Your task to perform on an android device: Go to settings Image 0: 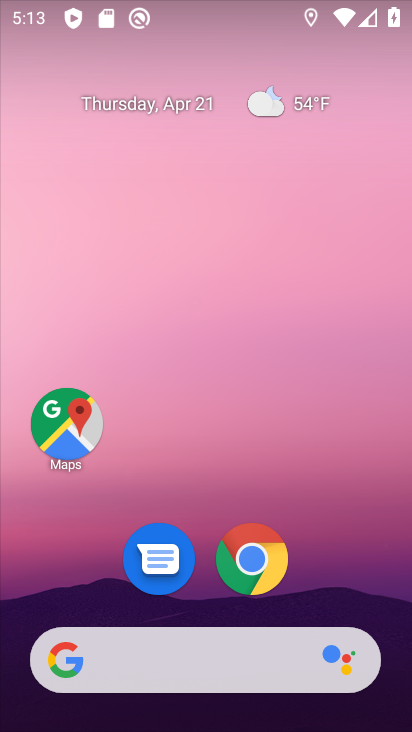
Step 0: drag from (338, 528) to (411, 39)
Your task to perform on an android device: Go to settings Image 1: 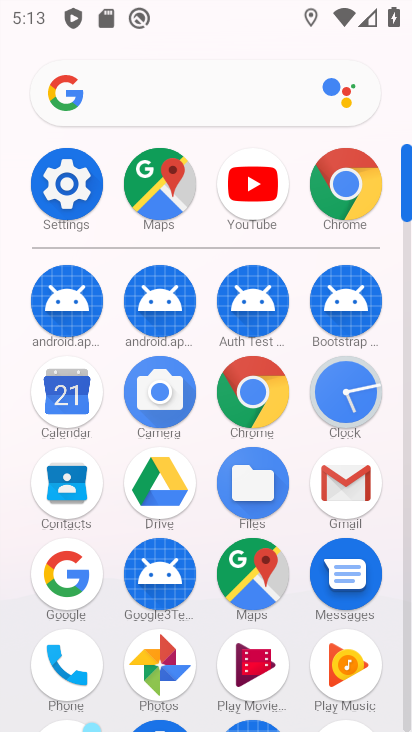
Step 1: click (67, 166)
Your task to perform on an android device: Go to settings Image 2: 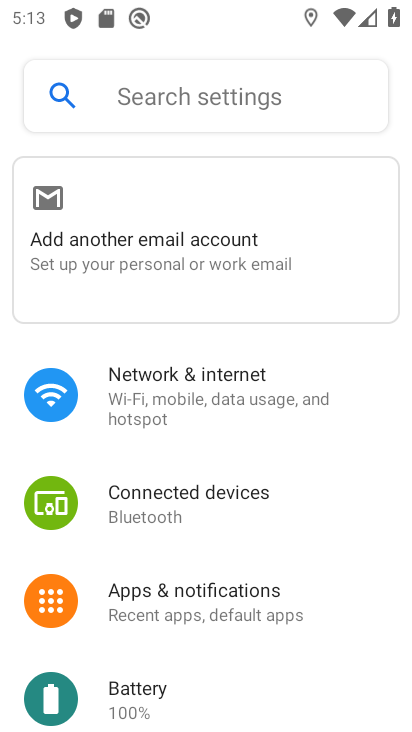
Step 2: task complete